Your task to perform on an android device: check google app version Image 0: 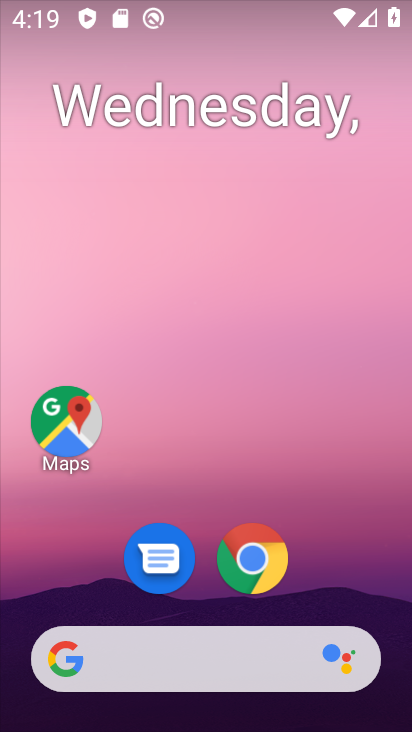
Step 0: drag from (341, 566) to (352, 232)
Your task to perform on an android device: check google app version Image 1: 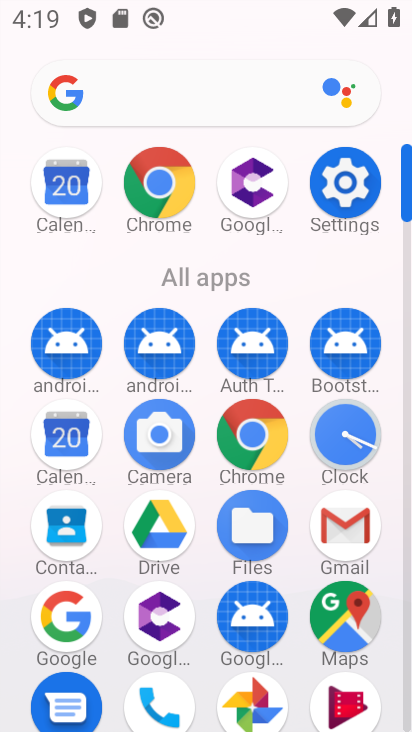
Step 1: click (69, 622)
Your task to perform on an android device: check google app version Image 2: 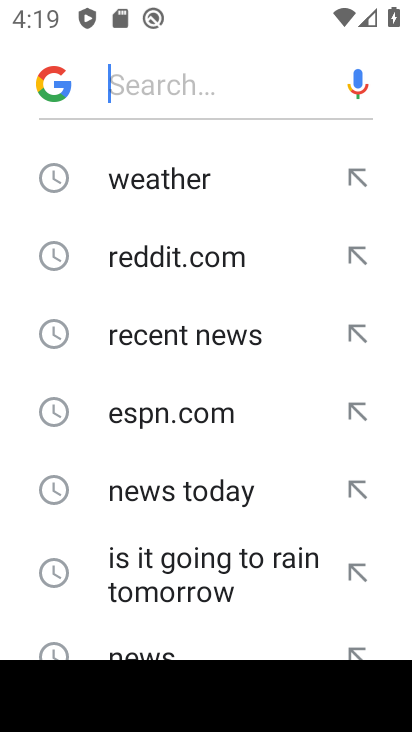
Step 2: press back button
Your task to perform on an android device: check google app version Image 3: 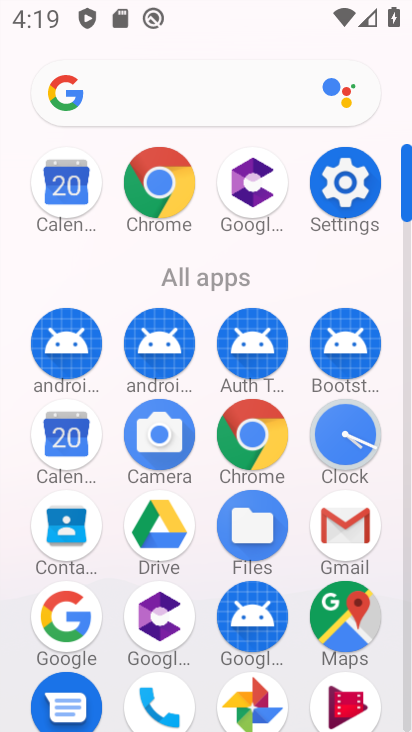
Step 3: click (74, 620)
Your task to perform on an android device: check google app version Image 4: 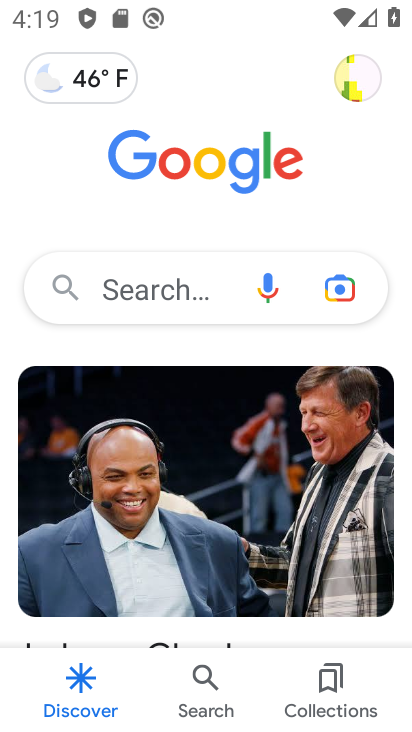
Step 4: click (366, 81)
Your task to perform on an android device: check google app version Image 5: 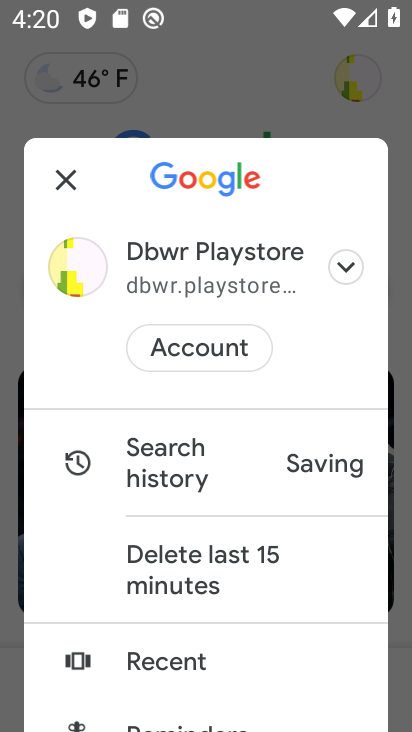
Step 5: drag from (323, 609) to (325, 423)
Your task to perform on an android device: check google app version Image 6: 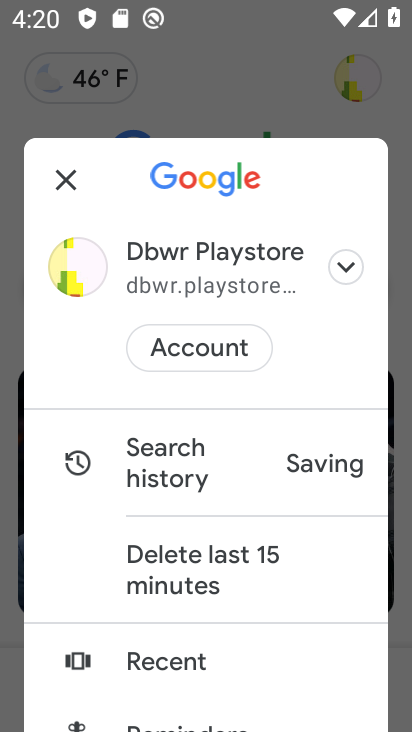
Step 6: drag from (295, 607) to (303, 286)
Your task to perform on an android device: check google app version Image 7: 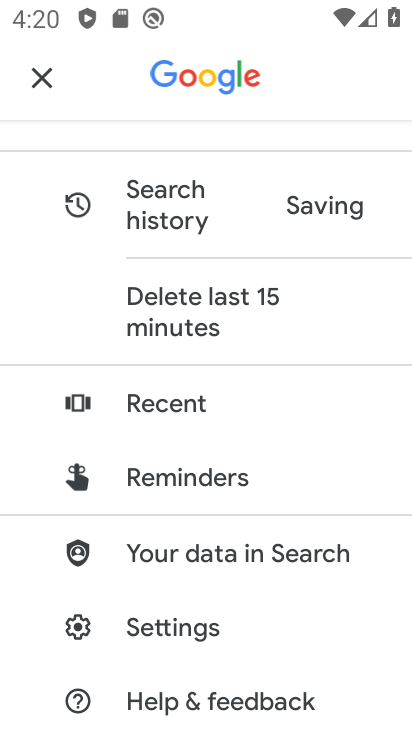
Step 7: click (196, 642)
Your task to perform on an android device: check google app version Image 8: 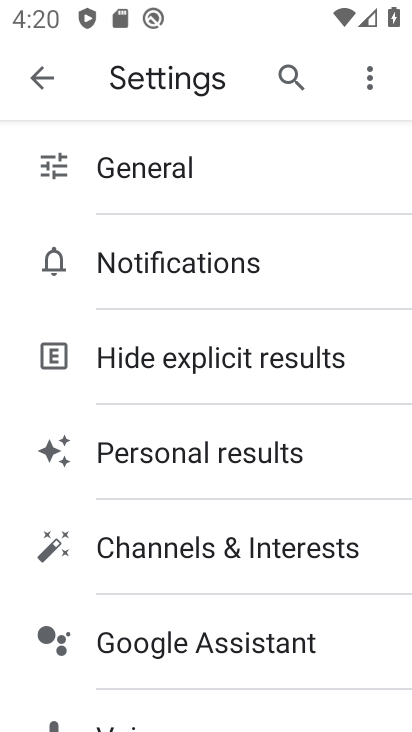
Step 8: drag from (339, 631) to (380, 427)
Your task to perform on an android device: check google app version Image 9: 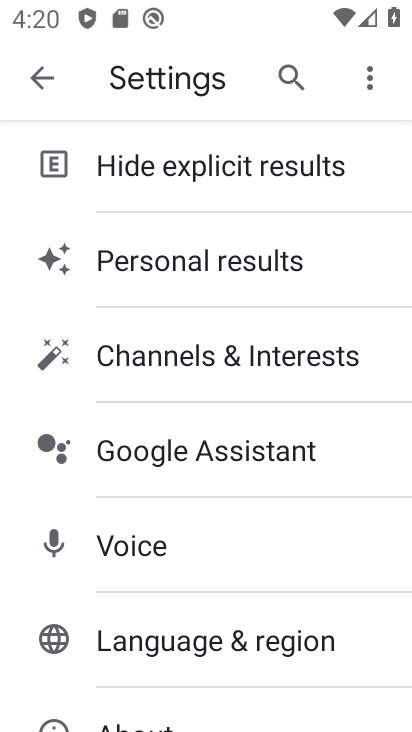
Step 9: drag from (365, 677) to (387, 464)
Your task to perform on an android device: check google app version Image 10: 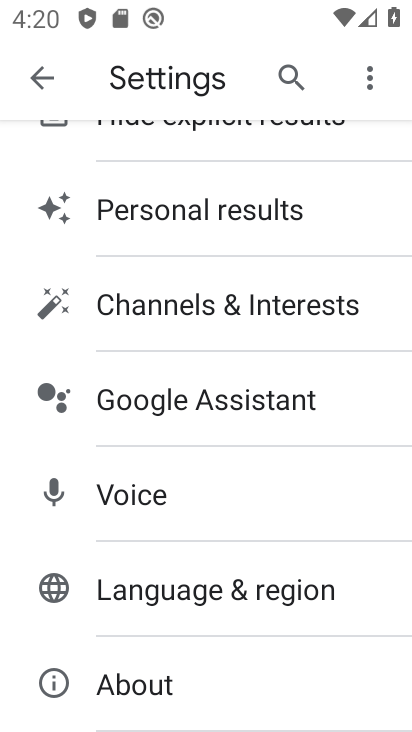
Step 10: click (250, 684)
Your task to perform on an android device: check google app version Image 11: 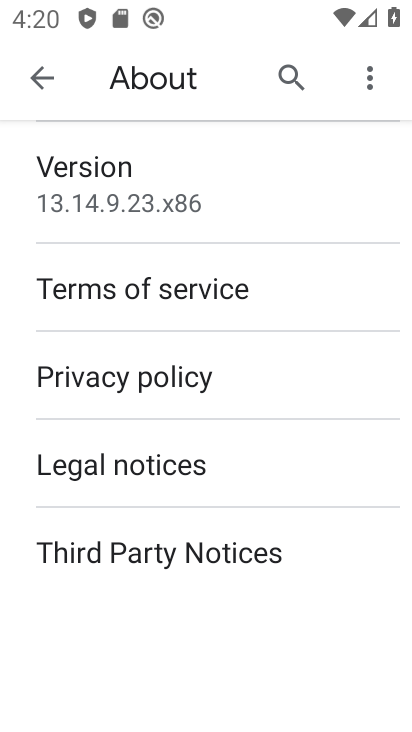
Step 11: task complete